Your task to perform on an android device: Go to display settings Image 0: 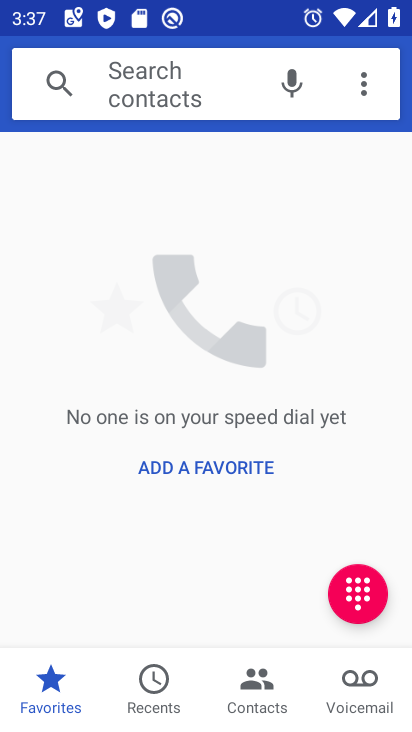
Step 0: press home button
Your task to perform on an android device: Go to display settings Image 1: 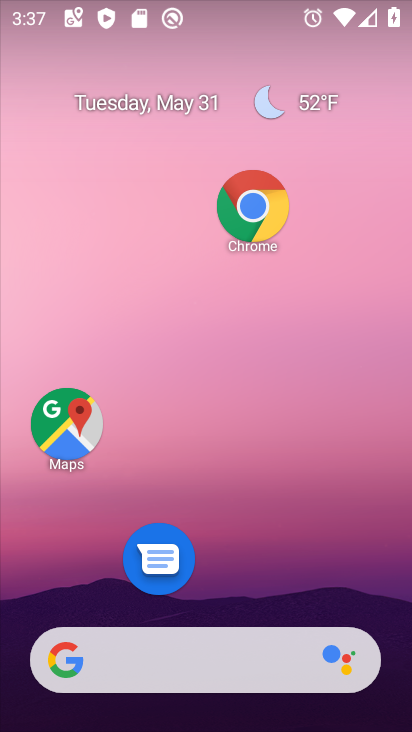
Step 1: drag from (203, 612) to (203, 108)
Your task to perform on an android device: Go to display settings Image 2: 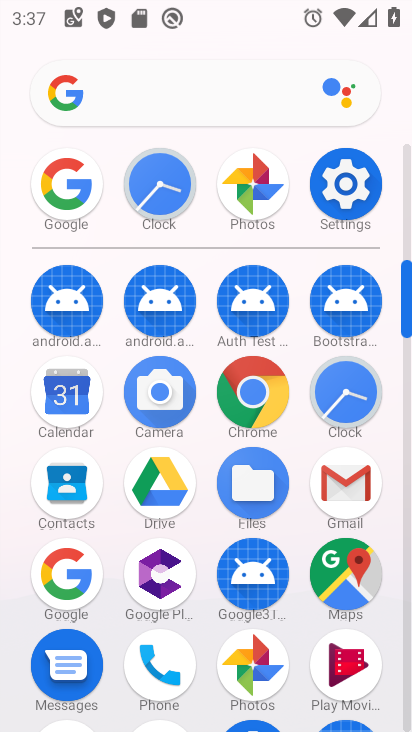
Step 2: click (320, 182)
Your task to perform on an android device: Go to display settings Image 3: 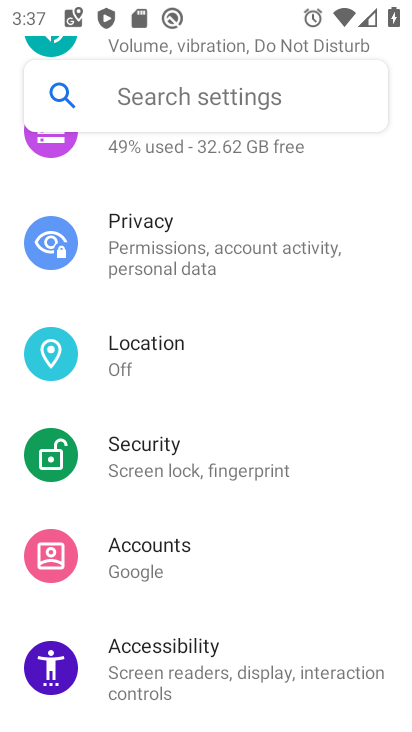
Step 3: drag from (216, 277) to (216, 541)
Your task to perform on an android device: Go to display settings Image 4: 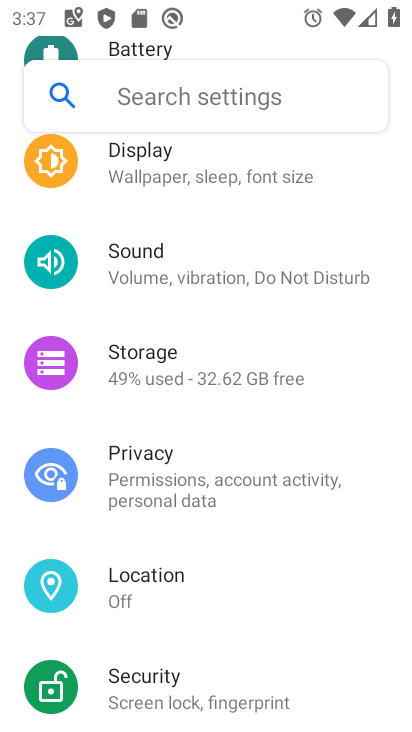
Step 4: click (212, 182)
Your task to perform on an android device: Go to display settings Image 5: 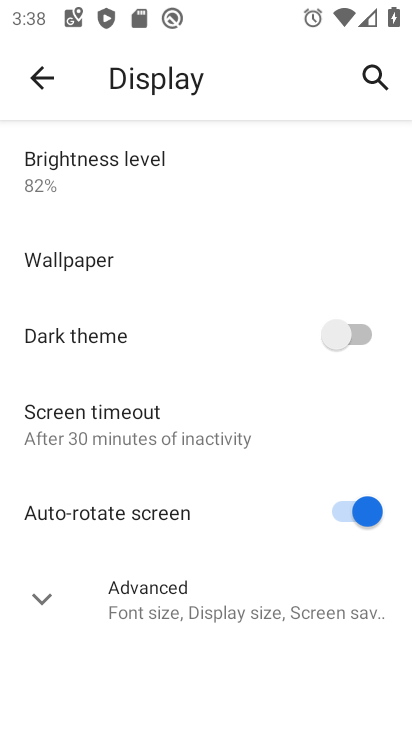
Step 5: task complete